Your task to perform on an android device: Open Yahoo.com Image 0: 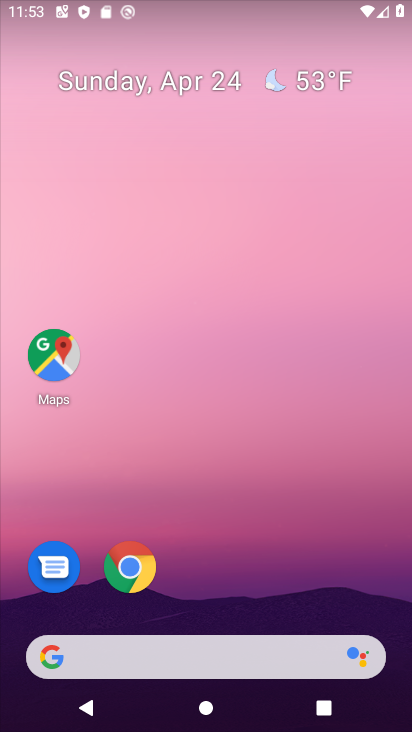
Step 0: click (266, 662)
Your task to perform on an android device: Open Yahoo.com Image 1: 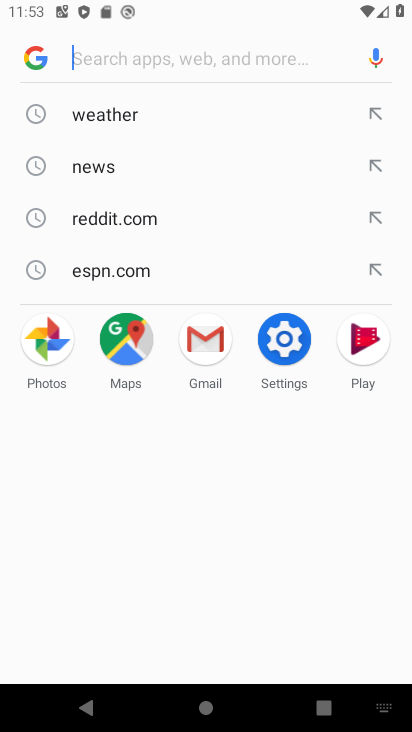
Step 1: type "yahoo.com"
Your task to perform on an android device: Open Yahoo.com Image 2: 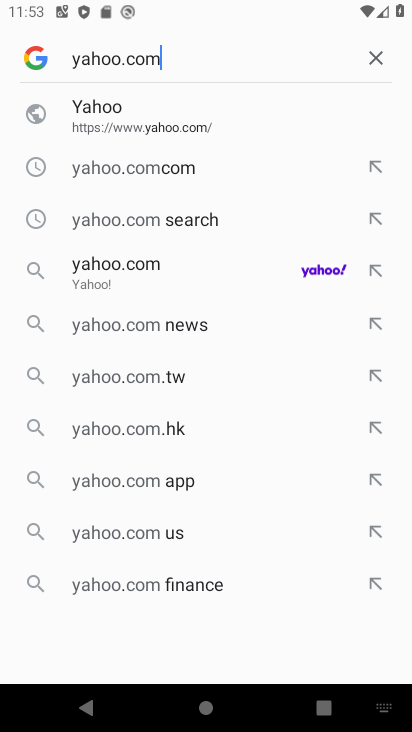
Step 2: click (207, 275)
Your task to perform on an android device: Open Yahoo.com Image 3: 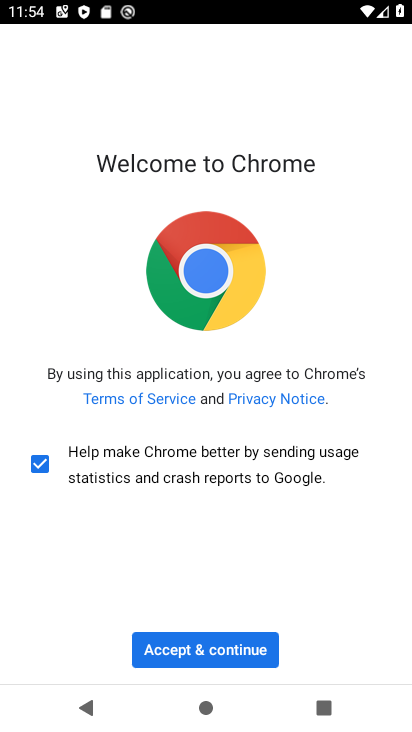
Step 3: click (224, 642)
Your task to perform on an android device: Open Yahoo.com Image 4: 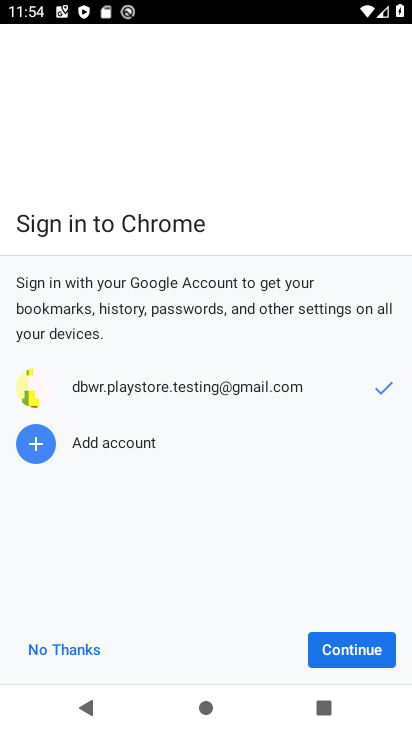
Step 4: click (350, 644)
Your task to perform on an android device: Open Yahoo.com Image 5: 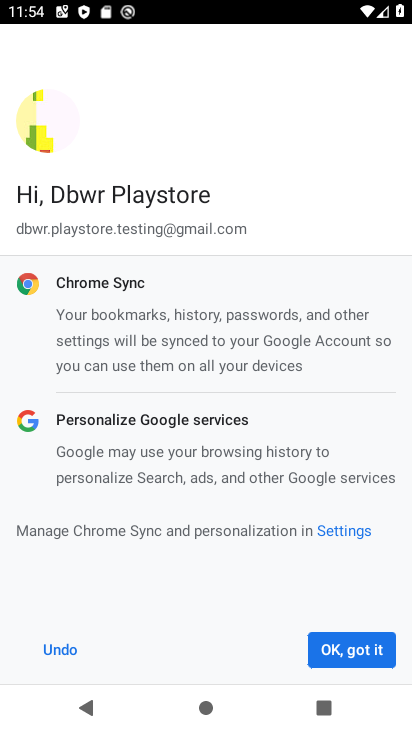
Step 5: click (350, 644)
Your task to perform on an android device: Open Yahoo.com Image 6: 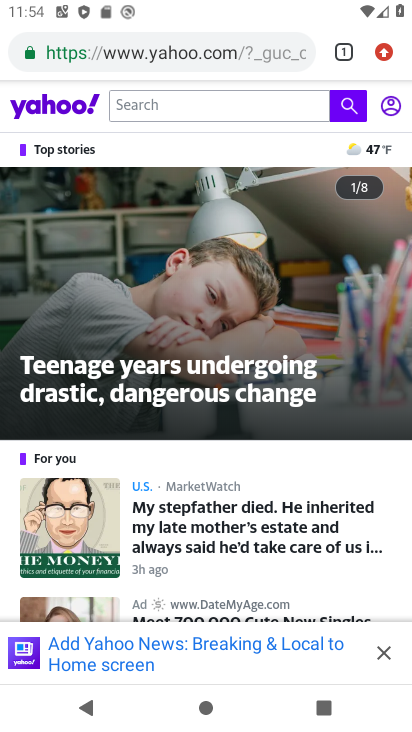
Step 6: task complete